Your task to perform on an android device: open a bookmark in the chrome app Image 0: 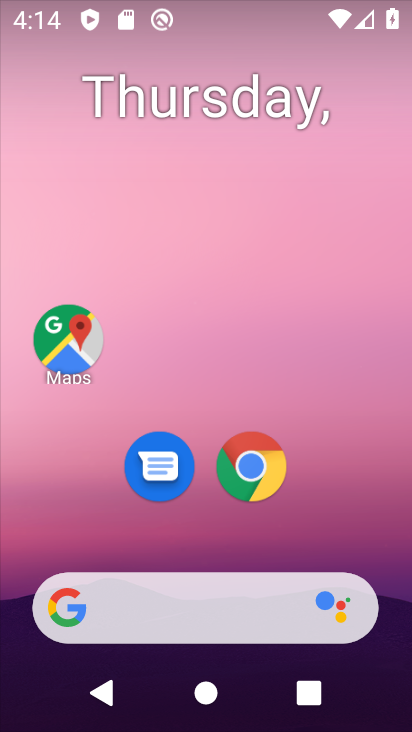
Step 0: click (249, 461)
Your task to perform on an android device: open a bookmark in the chrome app Image 1: 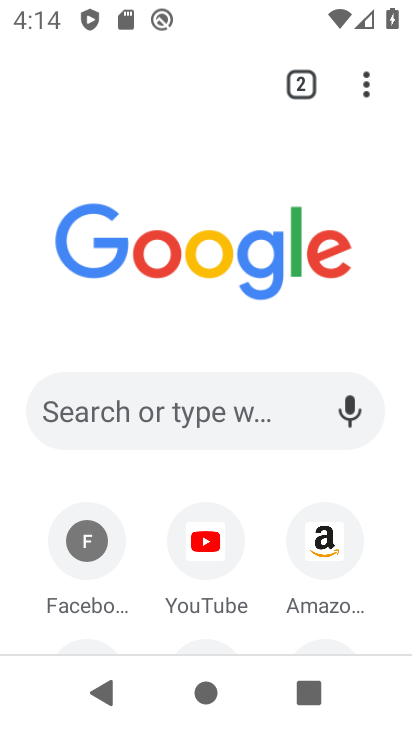
Step 1: click (366, 74)
Your task to perform on an android device: open a bookmark in the chrome app Image 2: 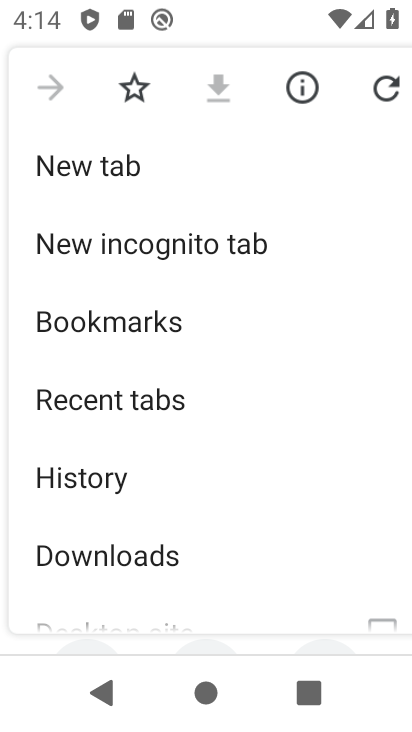
Step 2: click (191, 316)
Your task to perform on an android device: open a bookmark in the chrome app Image 3: 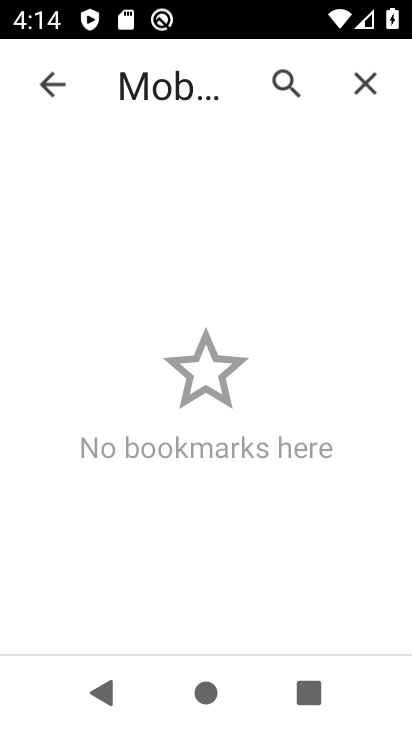
Step 3: task complete